Your task to perform on an android device: Open settings on Google Maps Image 0: 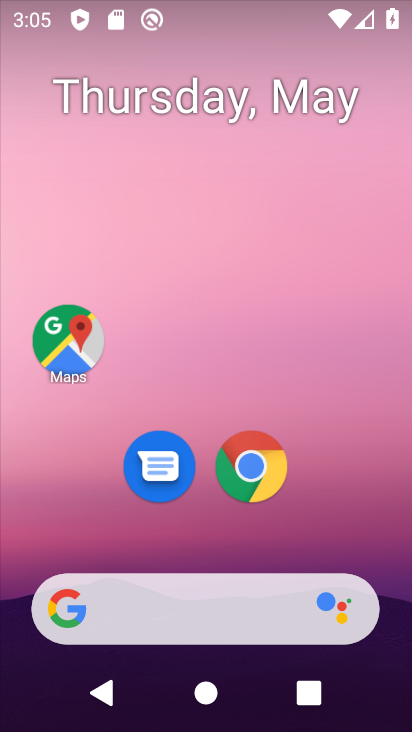
Step 0: click (80, 348)
Your task to perform on an android device: Open settings on Google Maps Image 1: 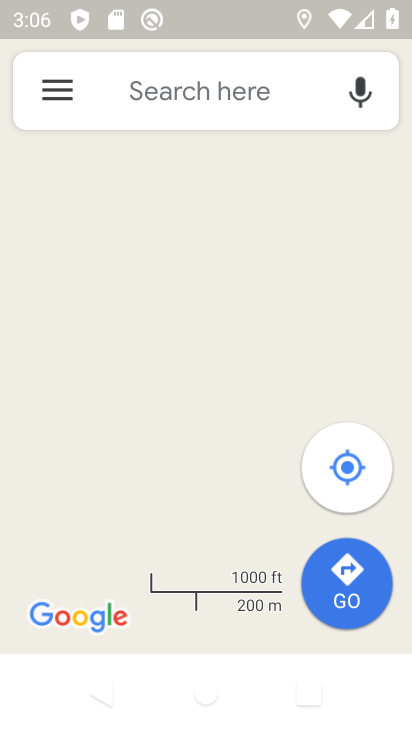
Step 1: click (54, 97)
Your task to perform on an android device: Open settings on Google Maps Image 2: 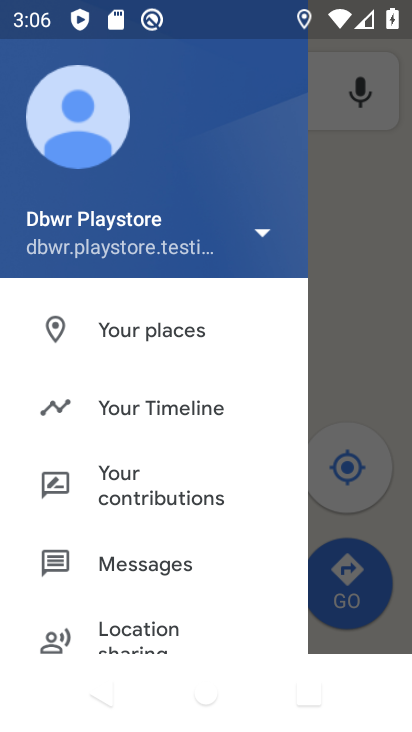
Step 2: drag from (146, 590) to (110, 267)
Your task to perform on an android device: Open settings on Google Maps Image 3: 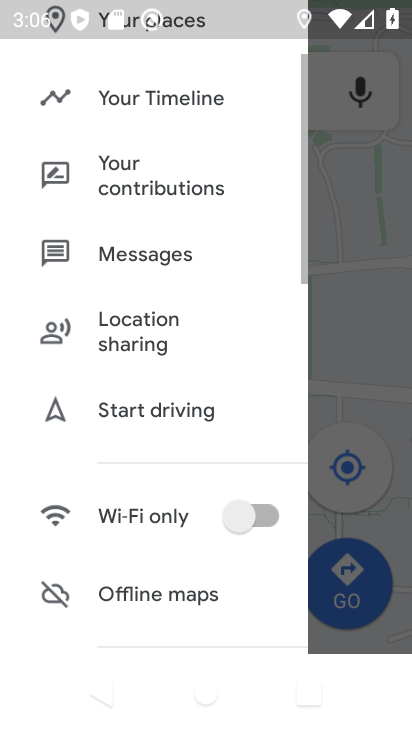
Step 3: drag from (152, 565) to (104, 225)
Your task to perform on an android device: Open settings on Google Maps Image 4: 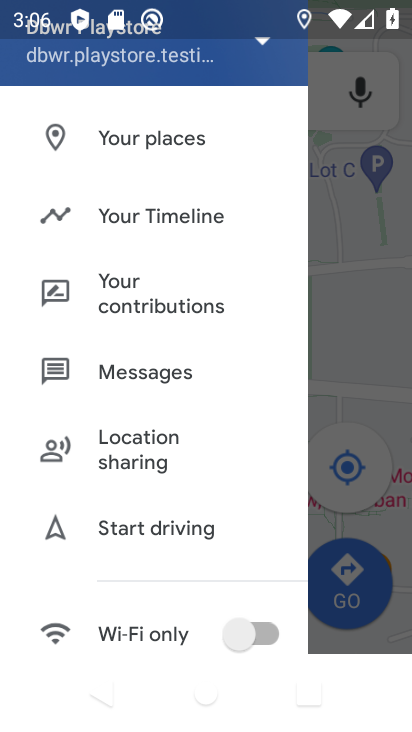
Step 4: drag from (129, 606) to (126, 233)
Your task to perform on an android device: Open settings on Google Maps Image 5: 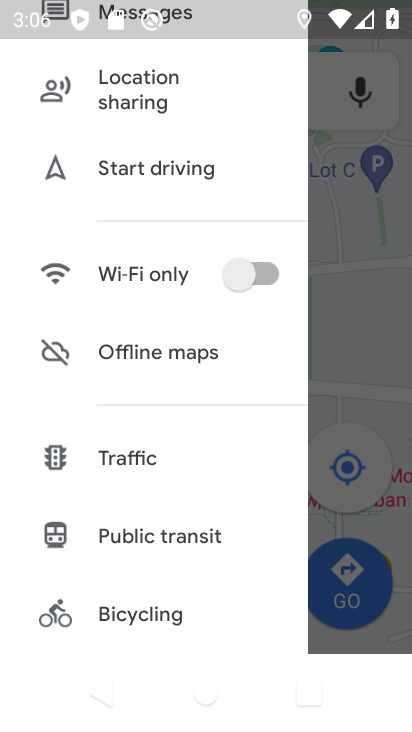
Step 5: drag from (162, 664) to (121, 422)
Your task to perform on an android device: Open settings on Google Maps Image 6: 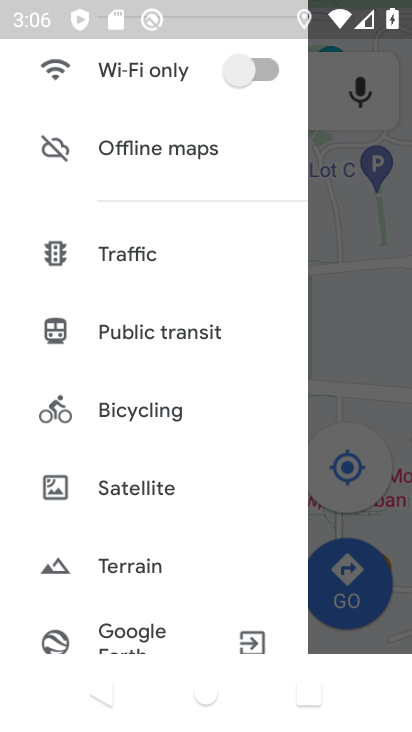
Step 6: drag from (159, 600) to (138, 303)
Your task to perform on an android device: Open settings on Google Maps Image 7: 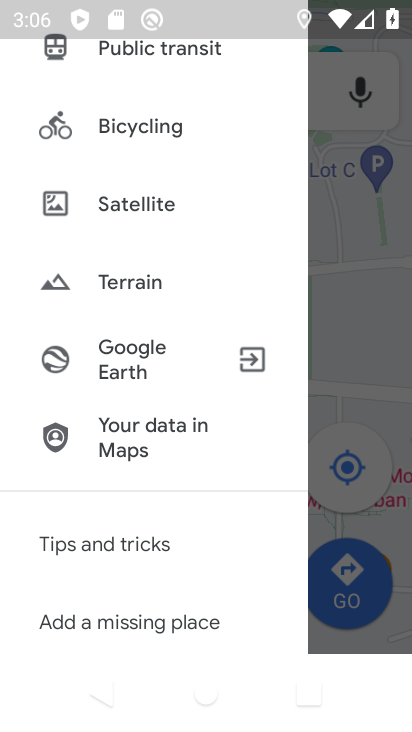
Step 7: drag from (148, 575) to (130, 343)
Your task to perform on an android device: Open settings on Google Maps Image 8: 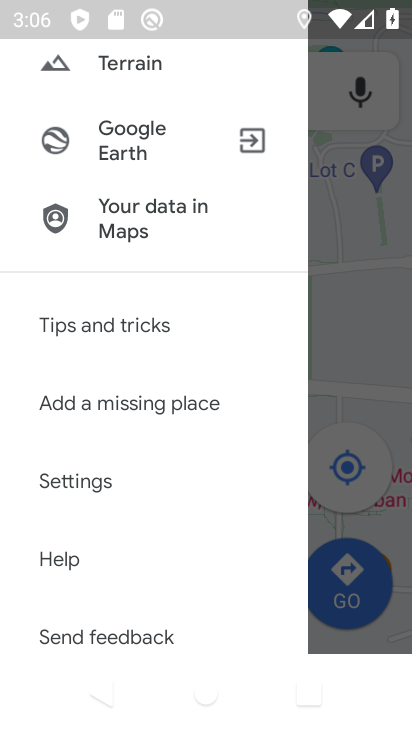
Step 8: click (137, 486)
Your task to perform on an android device: Open settings on Google Maps Image 9: 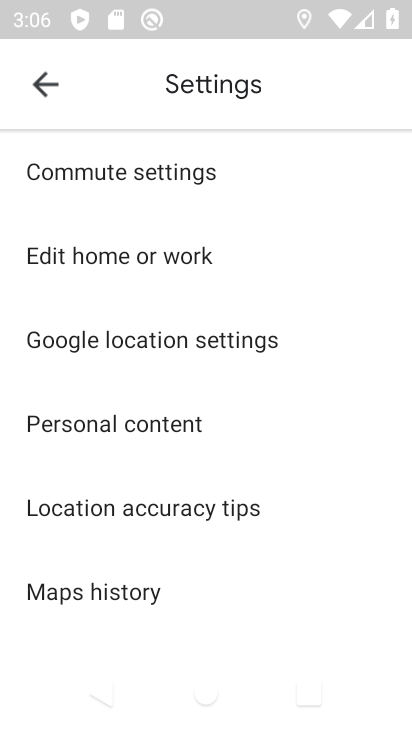
Step 9: task complete